Your task to perform on an android device: open device folders in google photos Image 0: 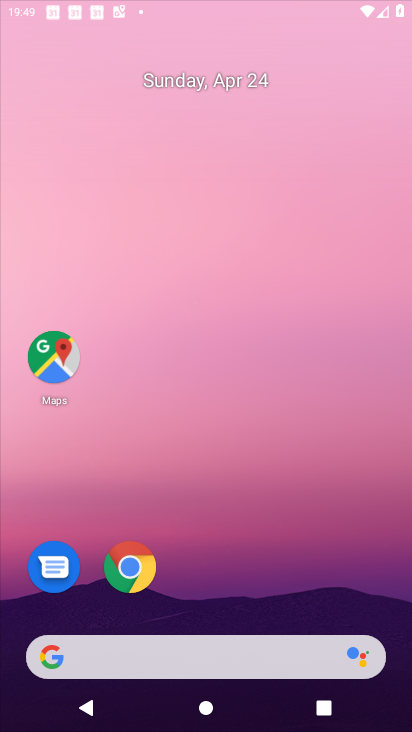
Step 0: drag from (297, 673) to (226, 244)
Your task to perform on an android device: open device folders in google photos Image 1: 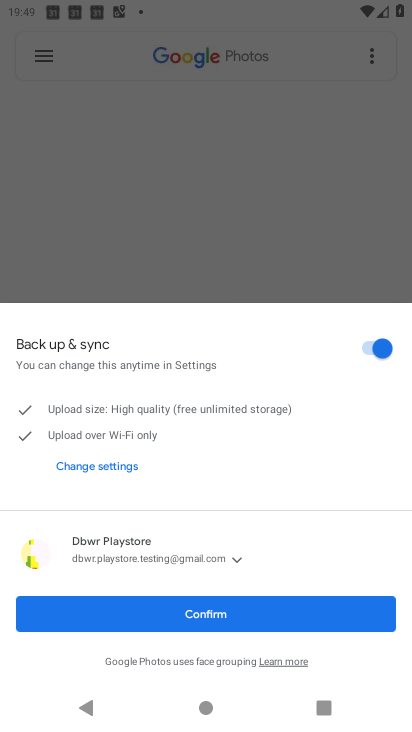
Step 1: click (323, 613)
Your task to perform on an android device: open device folders in google photos Image 2: 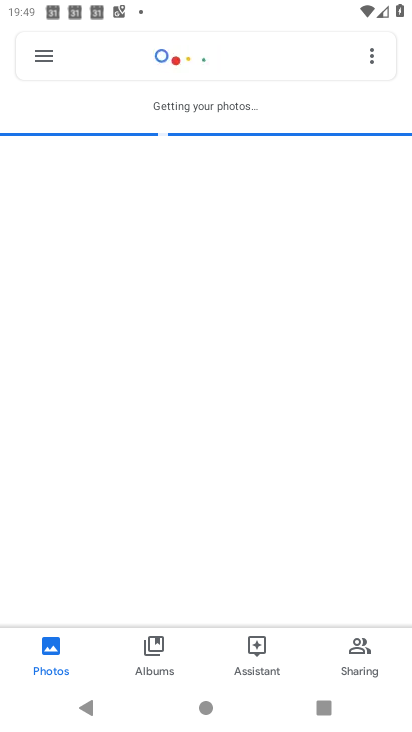
Step 2: click (48, 47)
Your task to perform on an android device: open device folders in google photos Image 3: 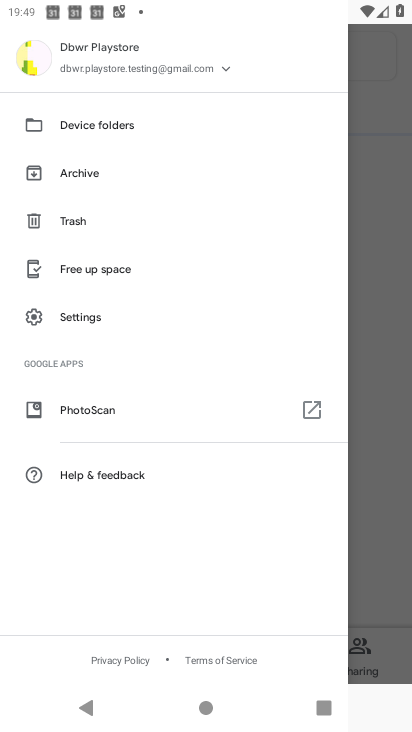
Step 3: click (112, 136)
Your task to perform on an android device: open device folders in google photos Image 4: 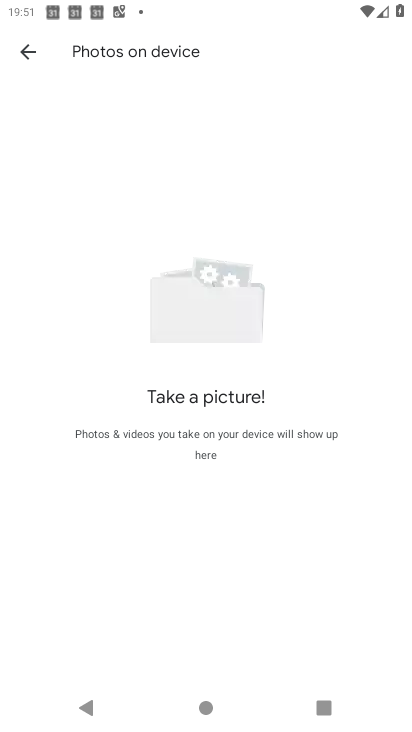
Step 4: task complete